Your task to perform on an android device: turn off improve location accuracy Image 0: 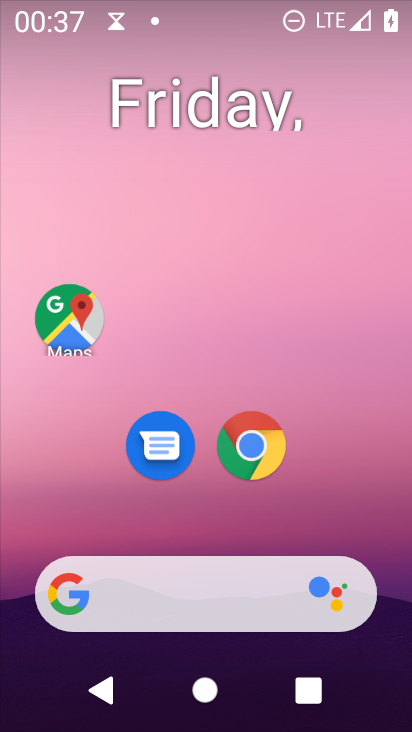
Step 0: drag from (240, 725) to (249, 90)
Your task to perform on an android device: turn off improve location accuracy Image 1: 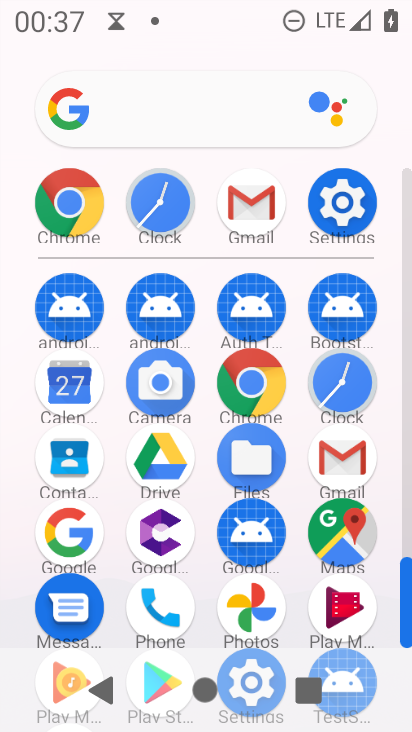
Step 1: click (331, 199)
Your task to perform on an android device: turn off improve location accuracy Image 2: 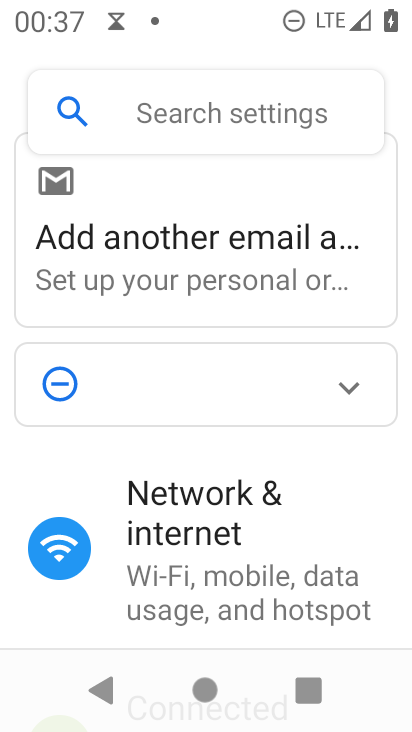
Step 2: drag from (287, 627) to (287, 235)
Your task to perform on an android device: turn off improve location accuracy Image 3: 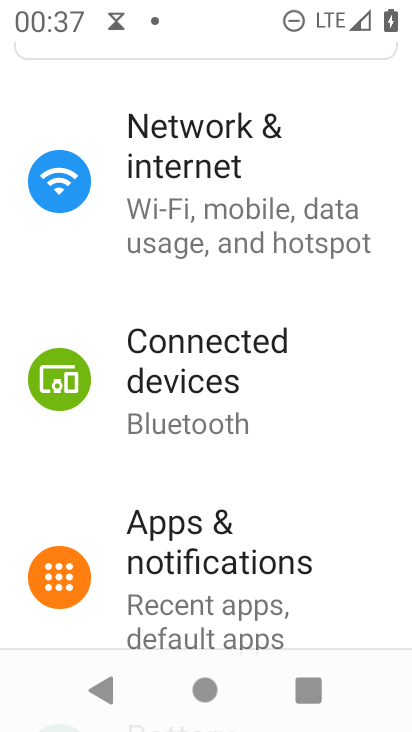
Step 3: drag from (289, 613) to (279, 243)
Your task to perform on an android device: turn off improve location accuracy Image 4: 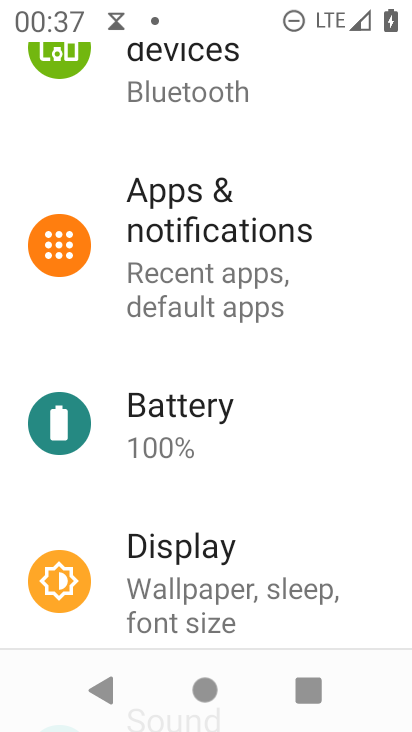
Step 4: drag from (299, 626) to (265, 149)
Your task to perform on an android device: turn off improve location accuracy Image 5: 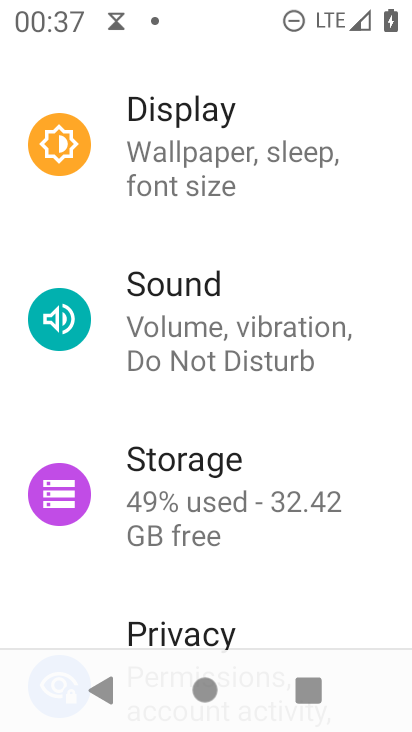
Step 5: drag from (238, 605) to (243, 164)
Your task to perform on an android device: turn off improve location accuracy Image 6: 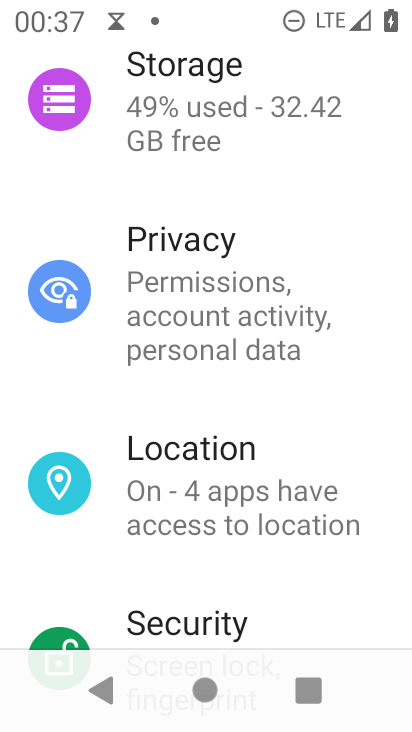
Step 6: click (201, 478)
Your task to perform on an android device: turn off improve location accuracy Image 7: 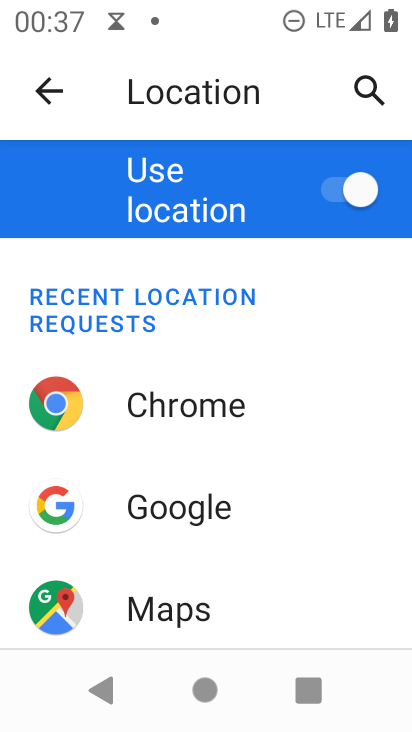
Step 7: drag from (263, 632) to (266, 308)
Your task to perform on an android device: turn off improve location accuracy Image 8: 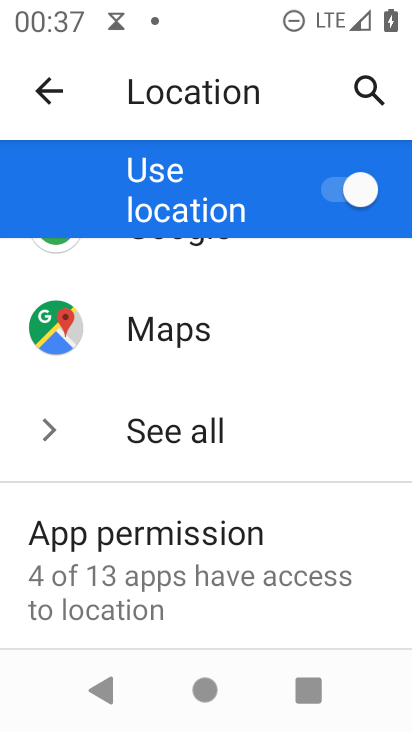
Step 8: drag from (257, 623) to (255, 308)
Your task to perform on an android device: turn off improve location accuracy Image 9: 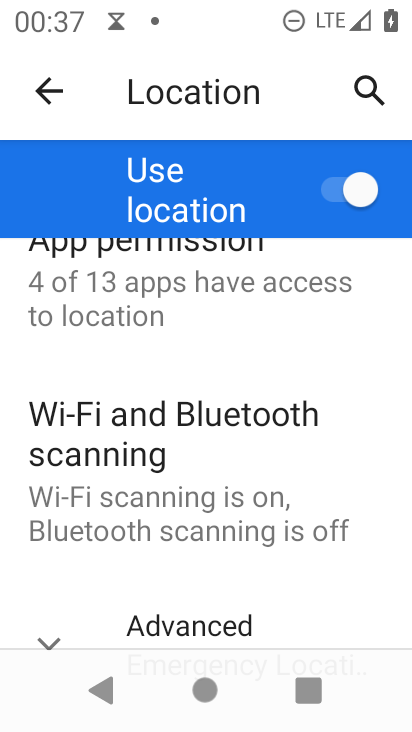
Step 9: drag from (281, 618) to (260, 347)
Your task to perform on an android device: turn off improve location accuracy Image 10: 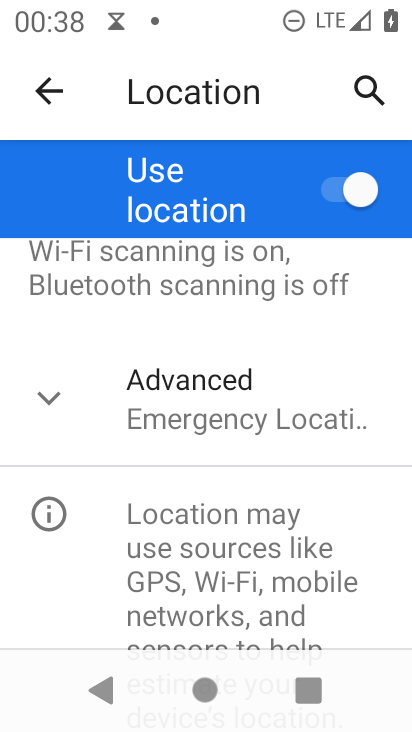
Step 10: click (187, 408)
Your task to perform on an android device: turn off improve location accuracy Image 11: 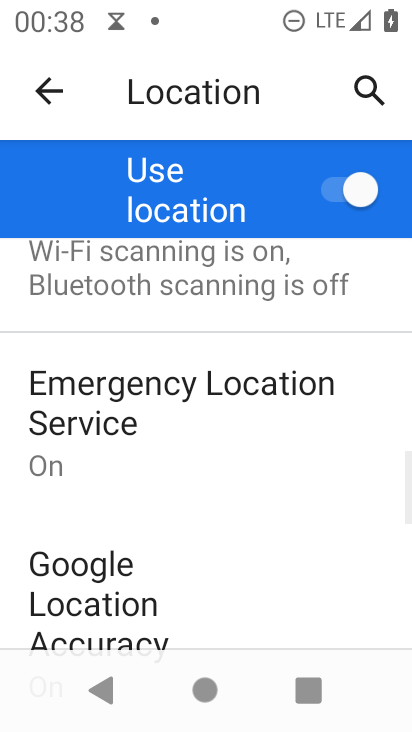
Step 11: drag from (201, 617) to (191, 346)
Your task to perform on an android device: turn off improve location accuracy Image 12: 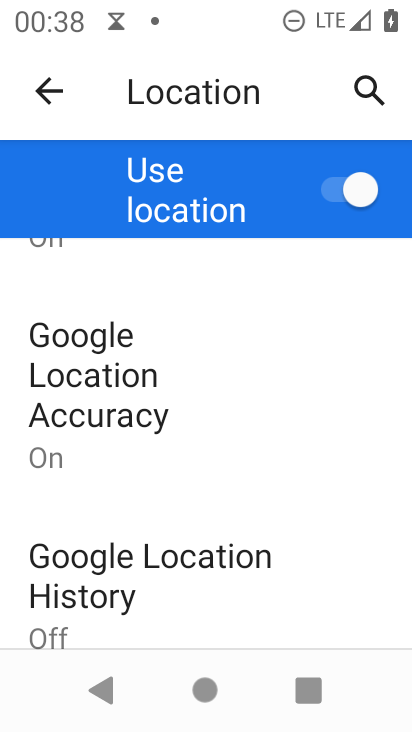
Step 12: click (94, 386)
Your task to perform on an android device: turn off improve location accuracy Image 13: 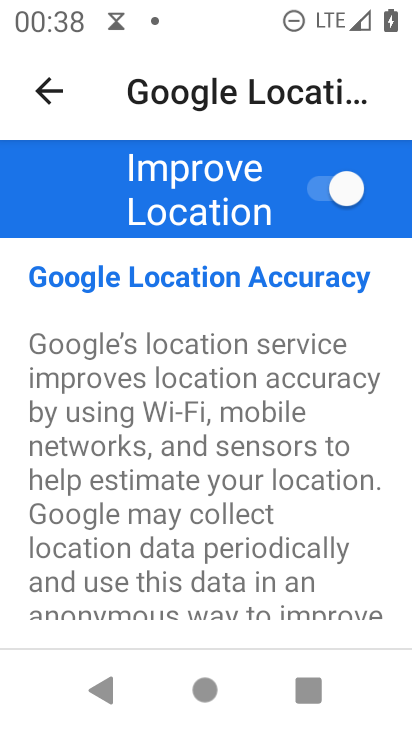
Step 13: click (322, 184)
Your task to perform on an android device: turn off improve location accuracy Image 14: 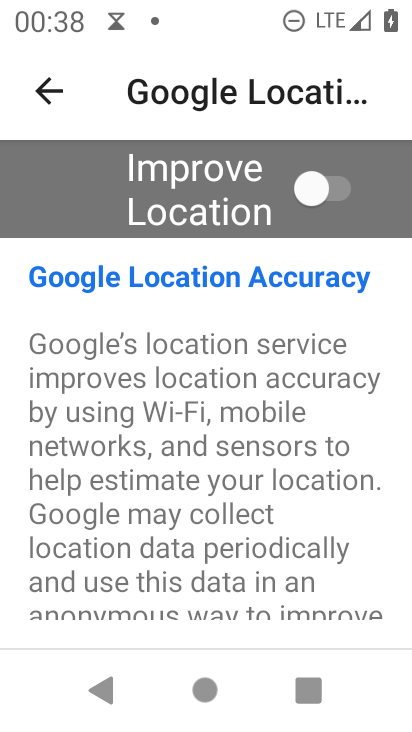
Step 14: task complete